Your task to perform on an android device: When is my next meeting? Image 0: 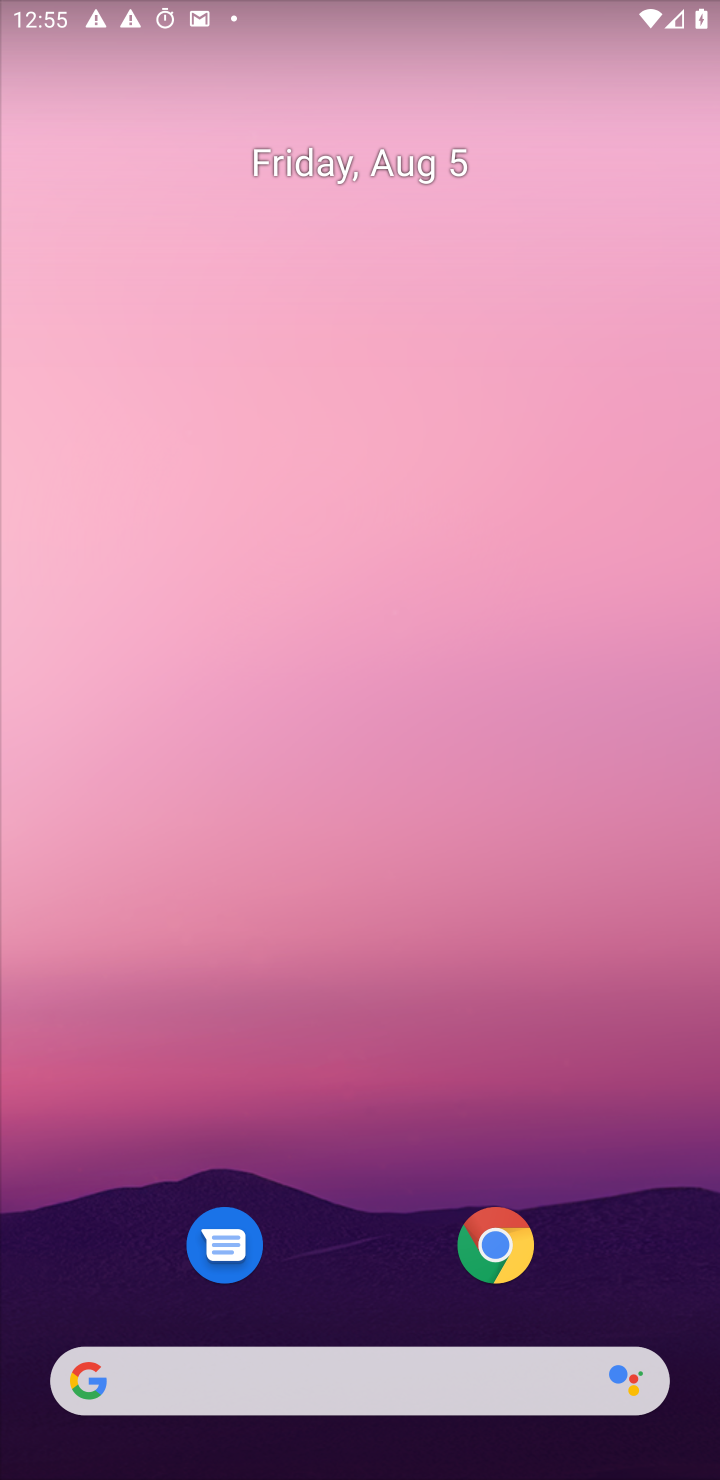
Step 0: press home button
Your task to perform on an android device: When is my next meeting? Image 1: 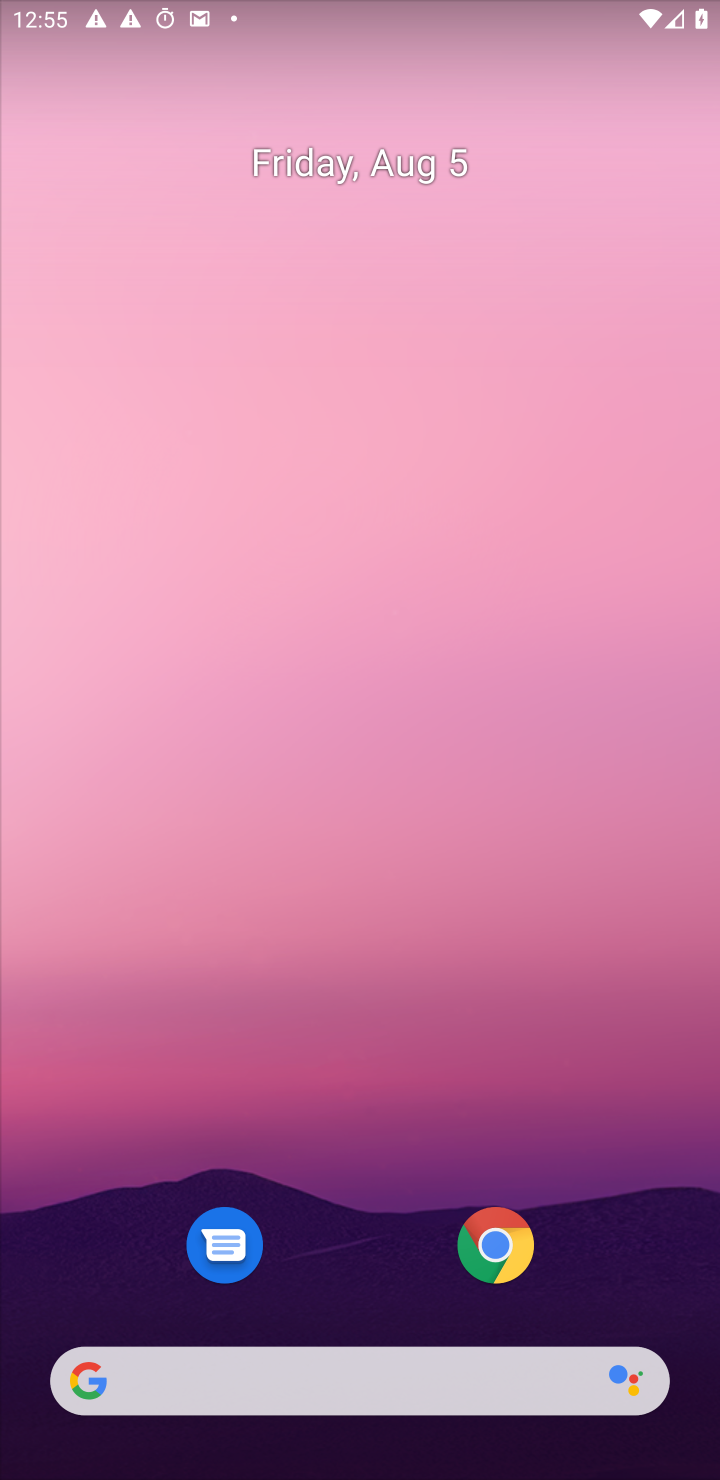
Step 1: drag from (357, 1326) to (389, 292)
Your task to perform on an android device: When is my next meeting? Image 2: 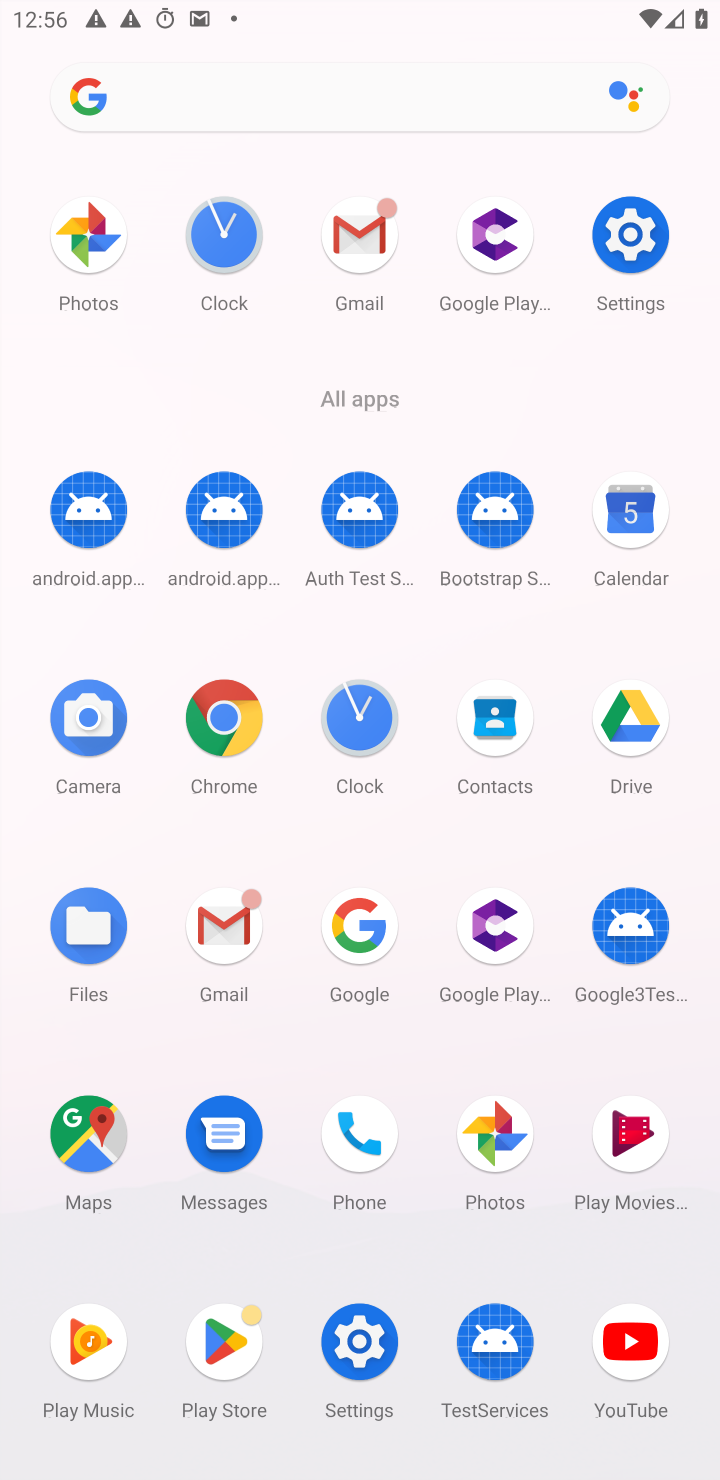
Step 2: click (638, 506)
Your task to perform on an android device: When is my next meeting? Image 3: 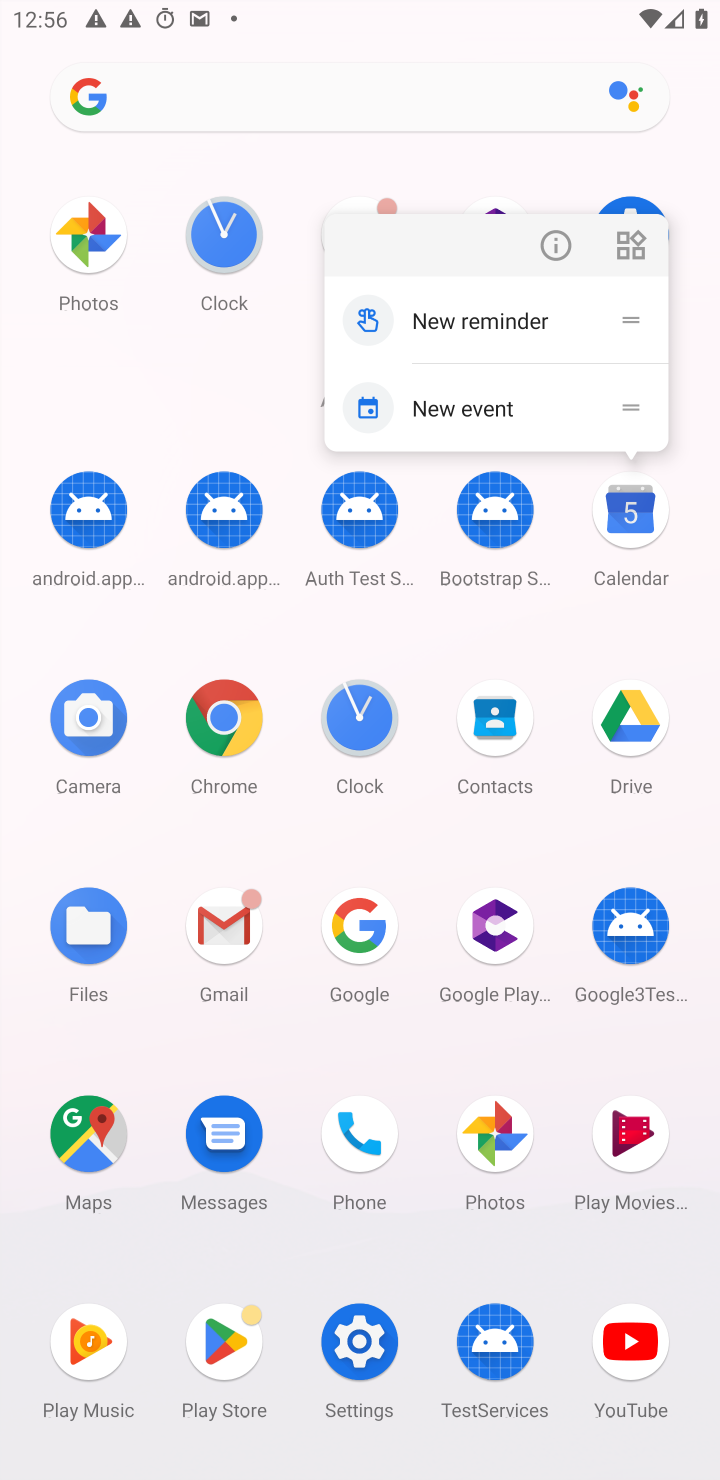
Step 3: click (638, 506)
Your task to perform on an android device: When is my next meeting? Image 4: 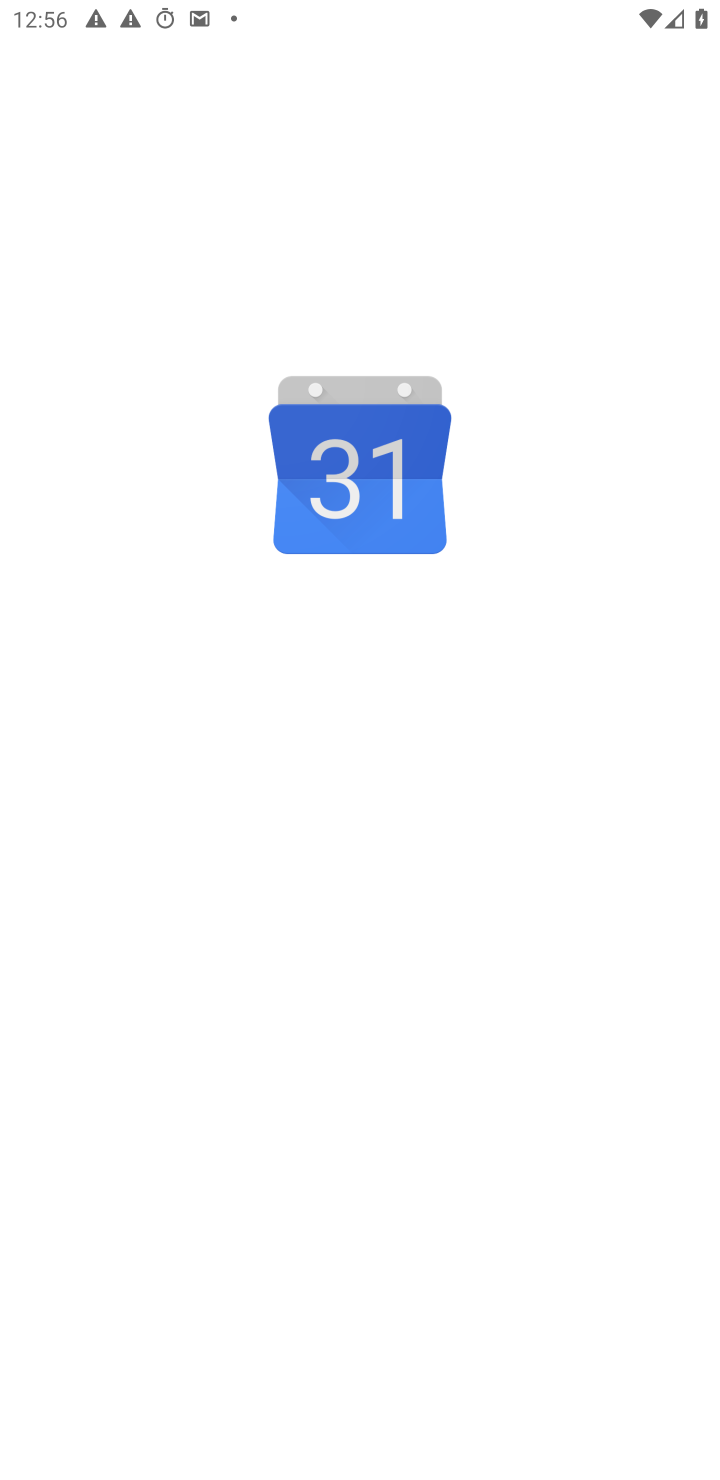
Step 4: click (638, 506)
Your task to perform on an android device: When is my next meeting? Image 5: 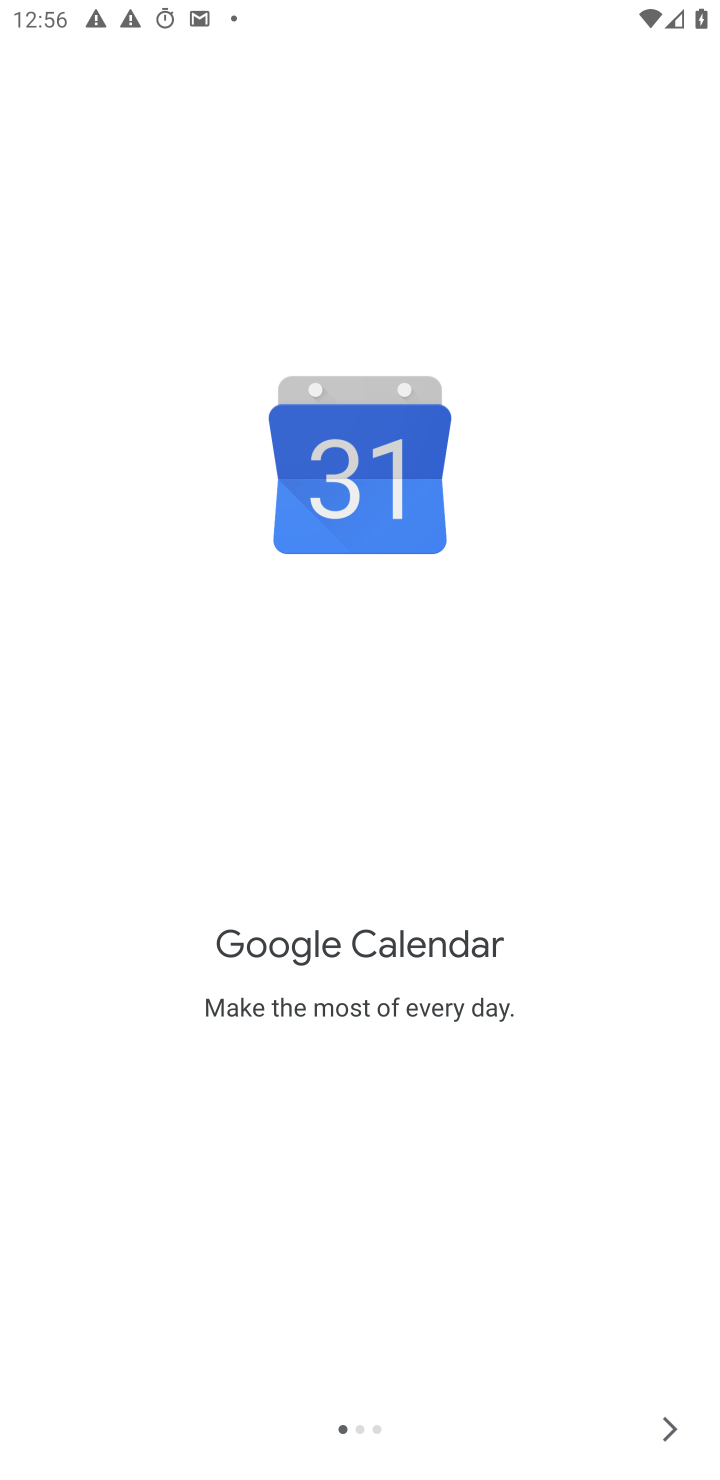
Step 5: click (667, 1426)
Your task to perform on an android device: When is my next meeting? Image 6: 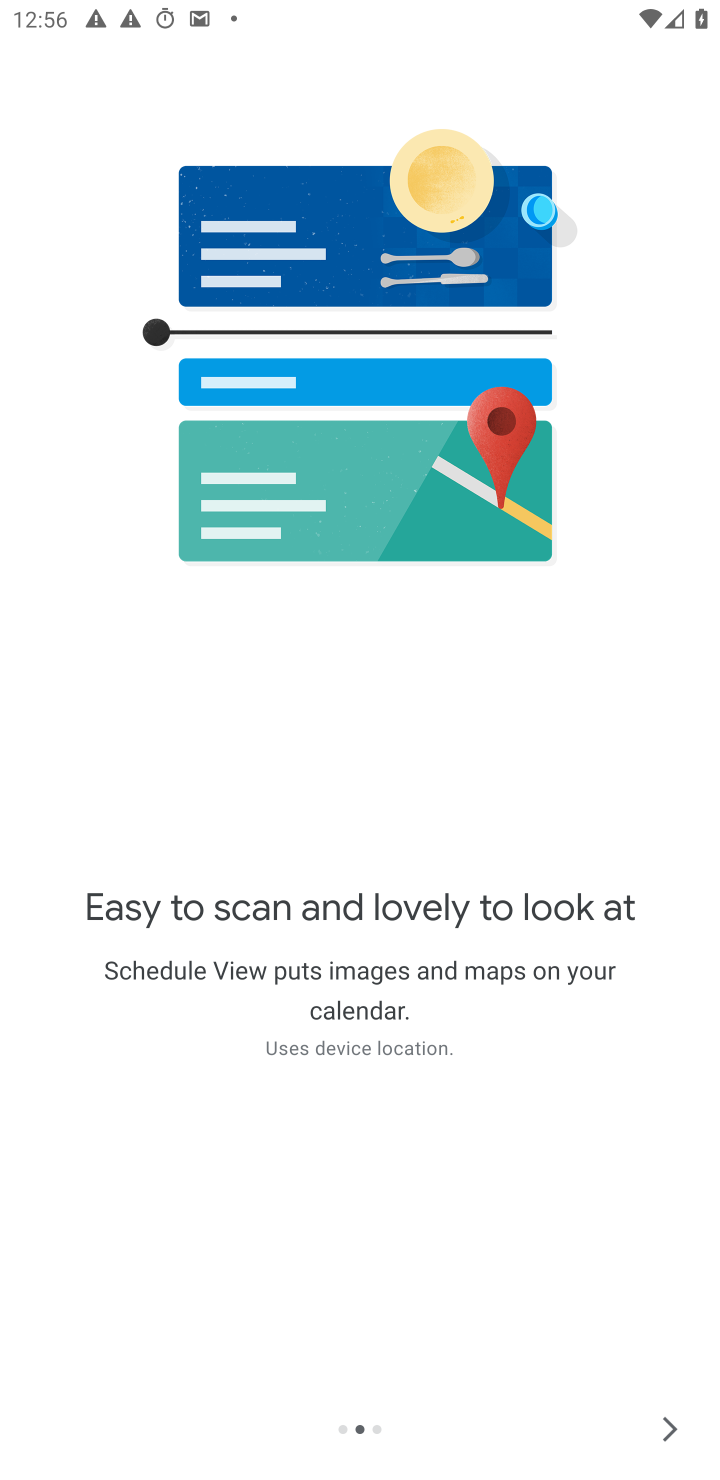
Step 6: click (668, 1444)
Your task to perform on an android device: When is my next meeting? Image 7: 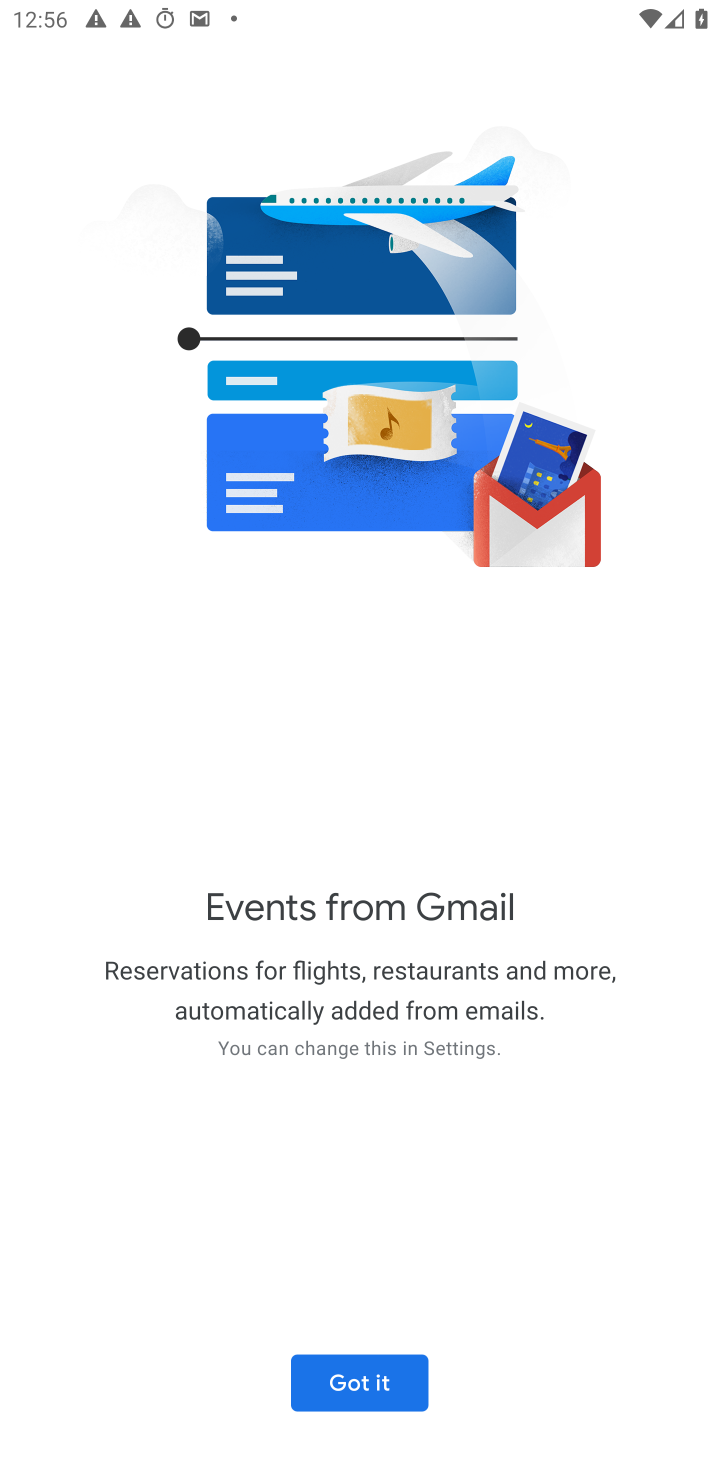
Step 7: click (344, 1377)
Your task to perform on an android device: When is my next meeting? Image 8: 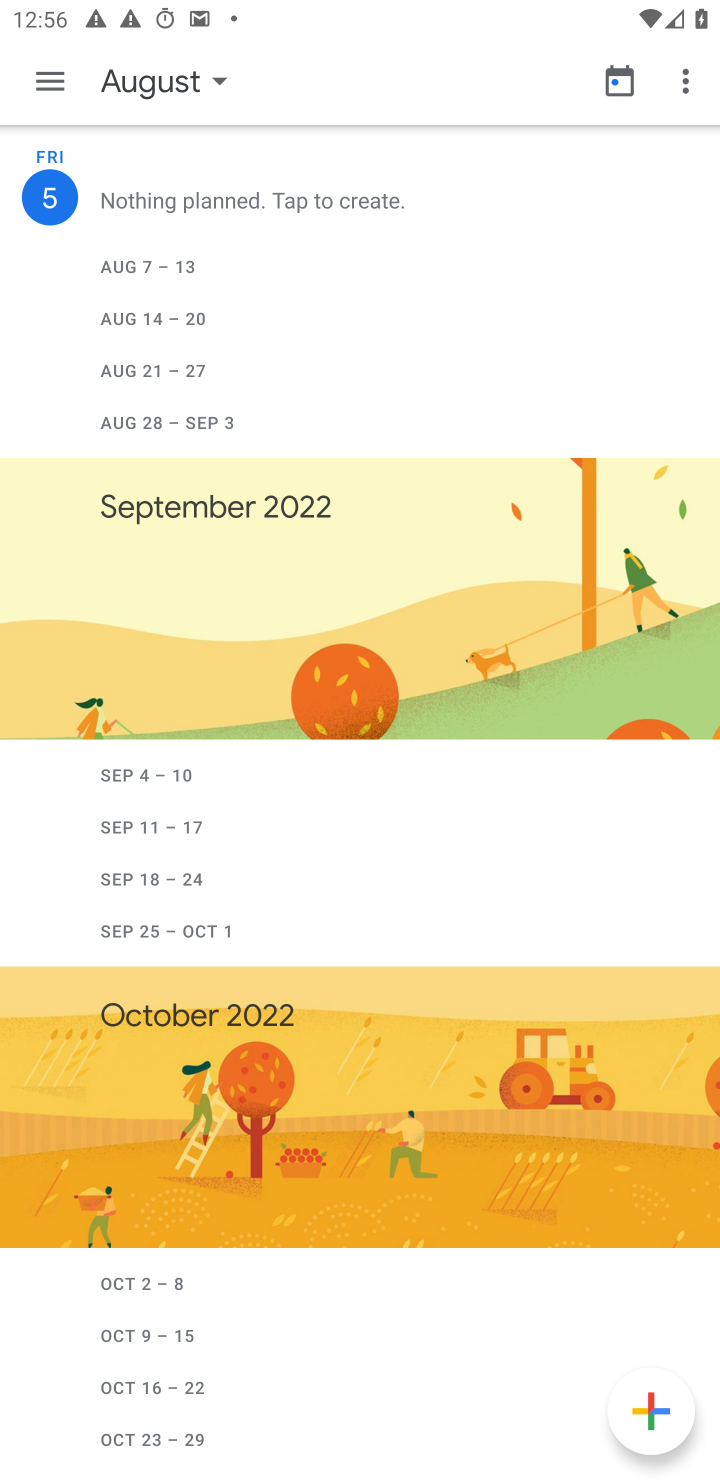
Step 8: click (53, 59)
Your task to perform on an android device: When is my next meeting? Image 9: 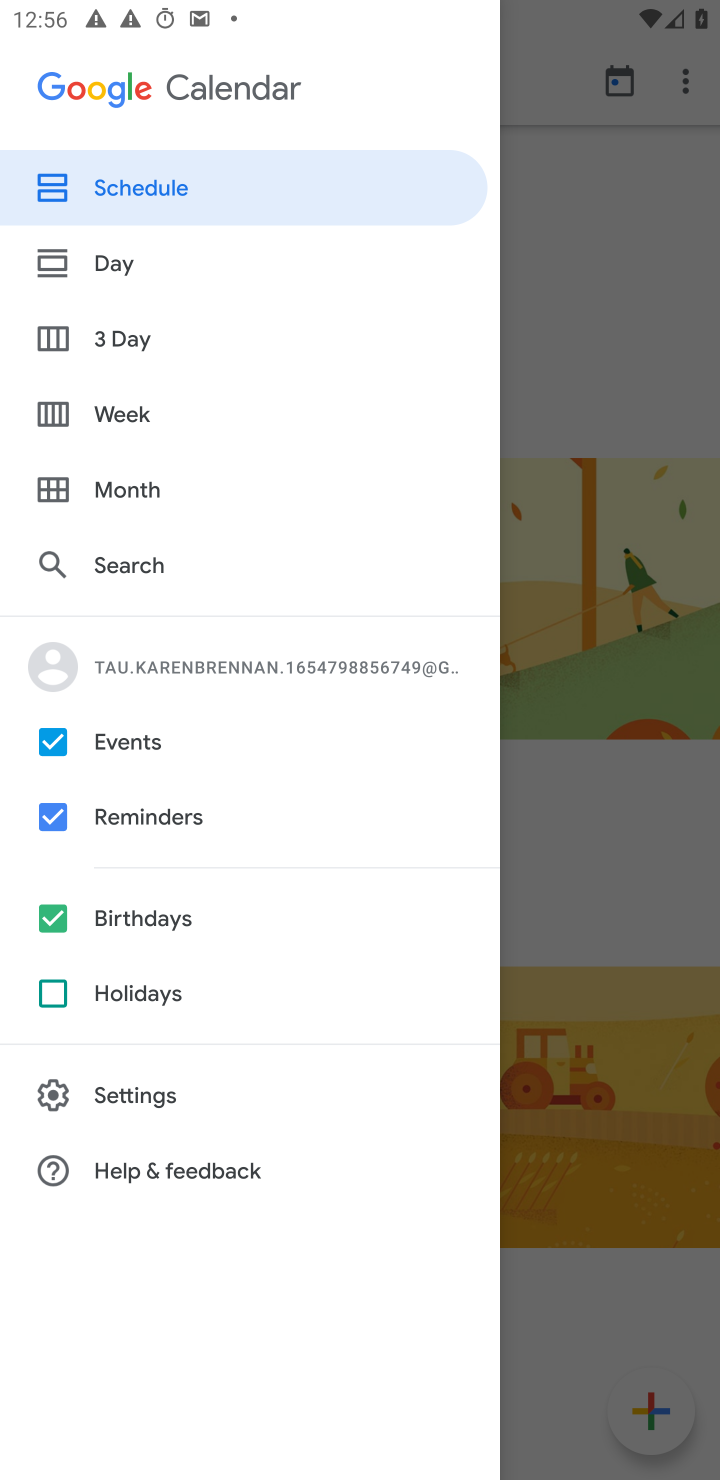
Step 9: click (146, 198)
Your task to perform on an android device: When is my next meeting? Image 10: 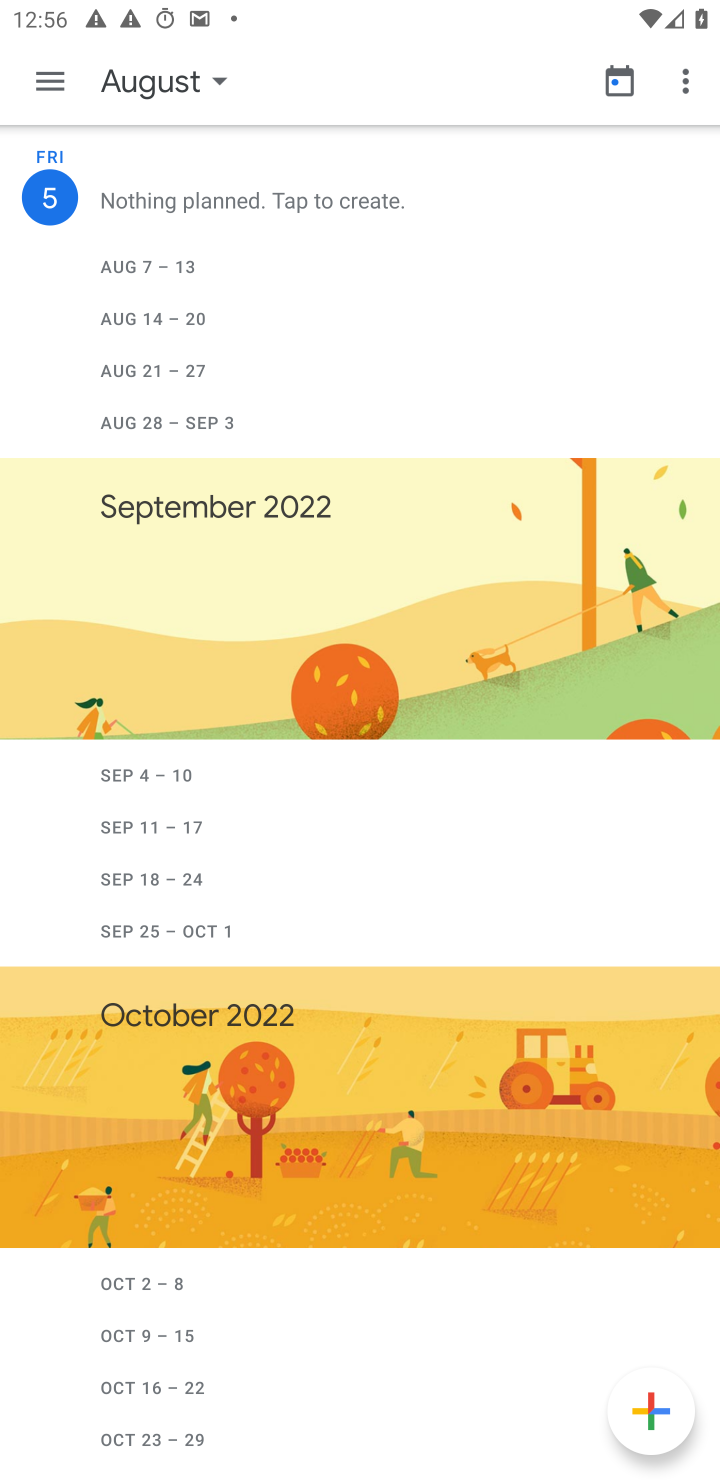
Step 10: task complete